Your task to perform on an android device: set default search engine in the chrome app Image 0: 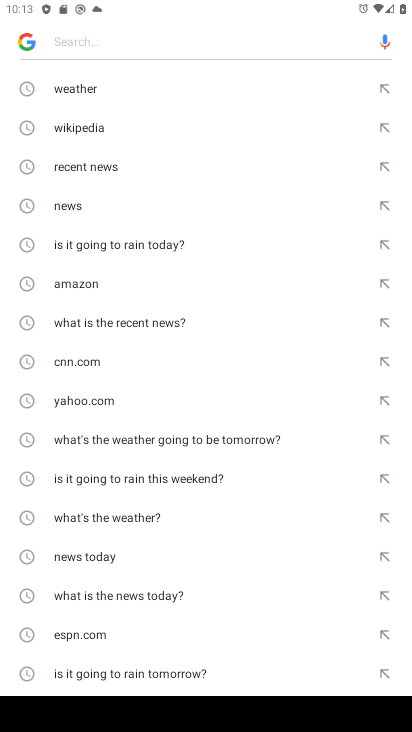
Step 0: press home button
Your task to perform on an android device: set default search engine in the chrome app Image 1: 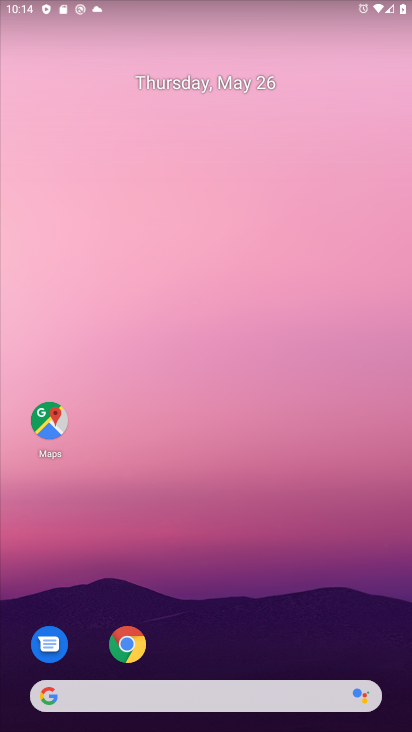
Step 1: click (131, 633)
Your task to perform on an android device: set default search engine in the chrome app Image 2: 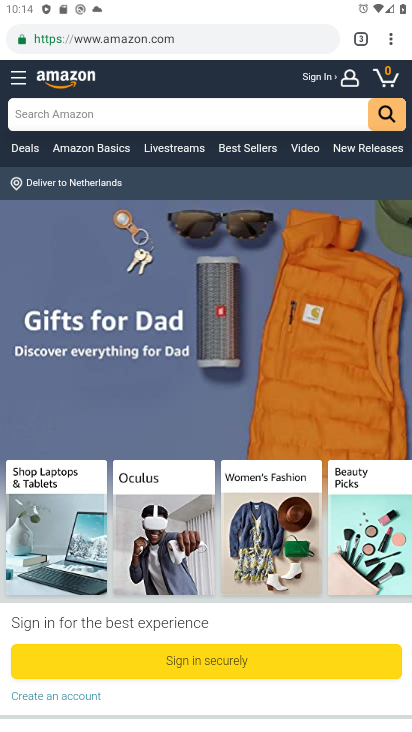
Step 2: click (381, 29)
Your task to perform on an android device: set default search engine in the chrome app Image 3: 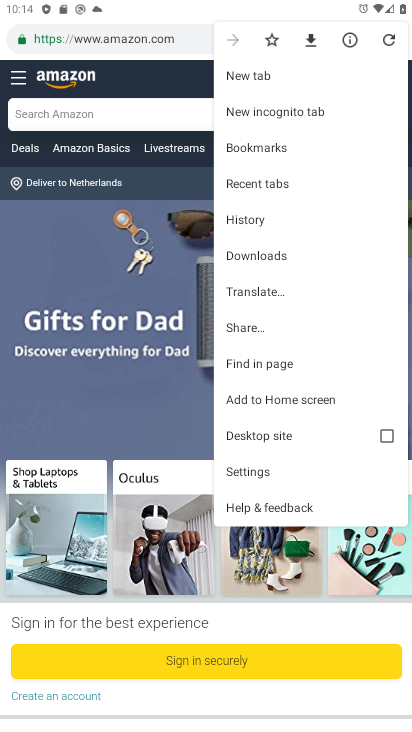
Step 3: click (262, 474)
Your task to perform on an android device: set default search engine in the chrome app Image 4: 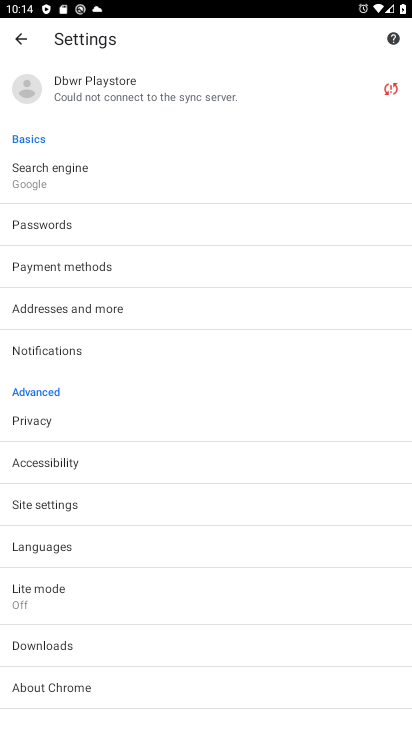
Step 4: click (121, 167)
Your task to perform on an android device: set default search engine in the chrome app Image 5: 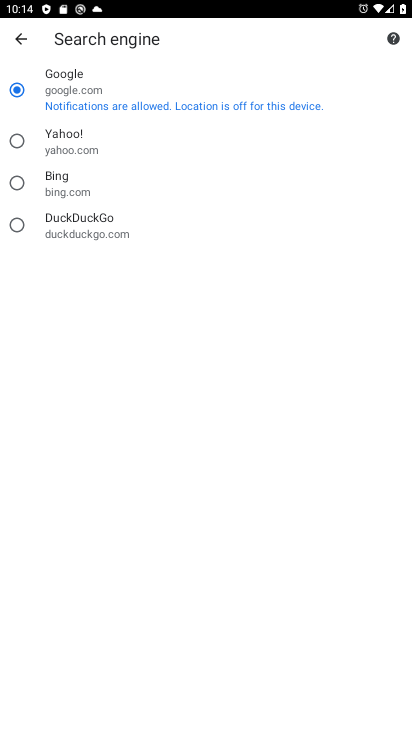
Step 5: click (23, 134)
Your task to perform on an android device: set default search engine in the chrome app Image 6: 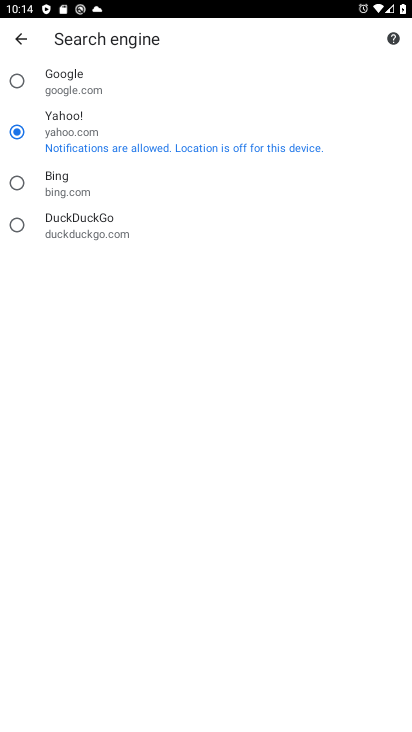
Step 6: task complete